Your task to perform on an android device: Open Youtube and go to "Your channel" Image 0: 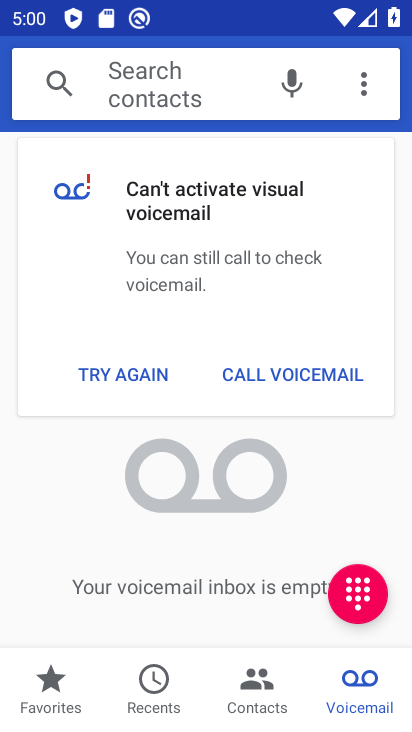
Step 0: press home button
Your task to perform on an android device: Open Youtube and go to "Your channel" Image 1: 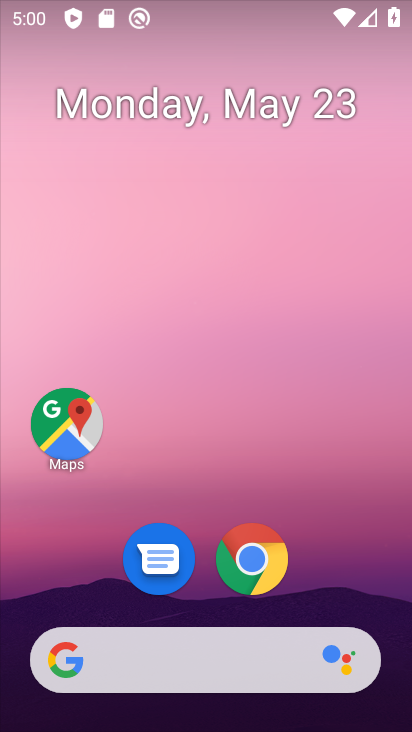
Step 1: drag from (183, 646) to (218, 6)
Your task to perform on an android device: Open Youtube and go to "Your channel" Image 2: 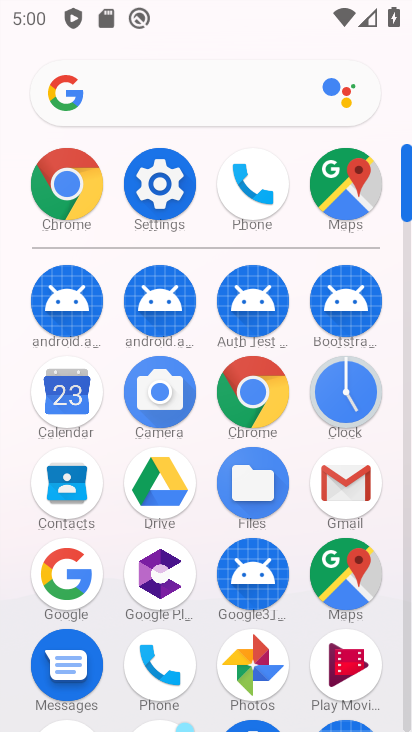
Step 2: drag from (293, 583) to (286, 108)
Your task to perform on an android device: Open Youtube and go to "Your channel" Image 3: 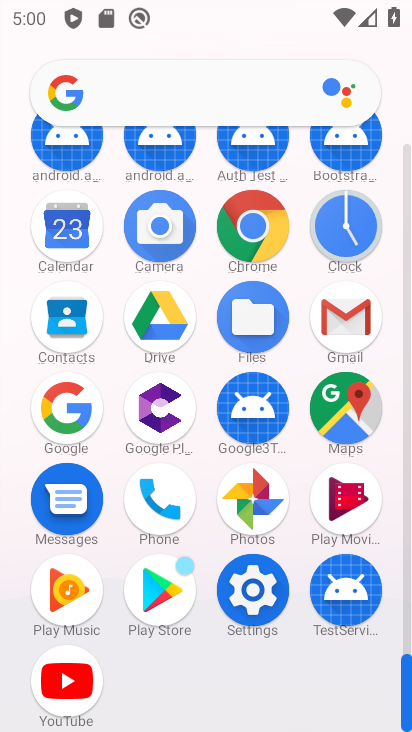
Step 3: click (70, 674)
Your task to perform on an android device: Open Youtube and go to "Your channel" Image 4: 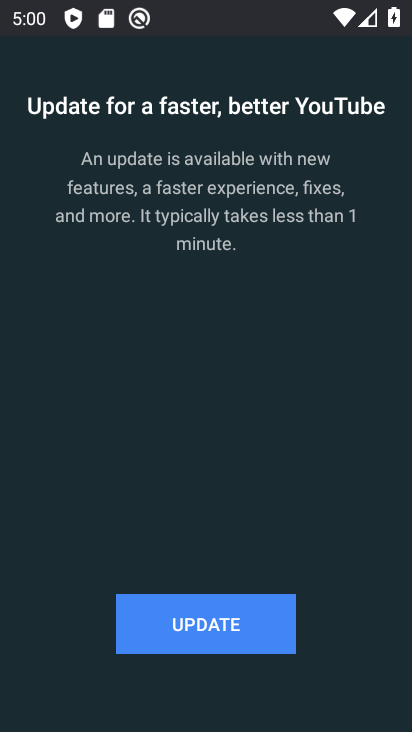
Step 4: click (242, 620)
Your task to perform on an android device: Open Youtube and go to "Your channel" Image 5: 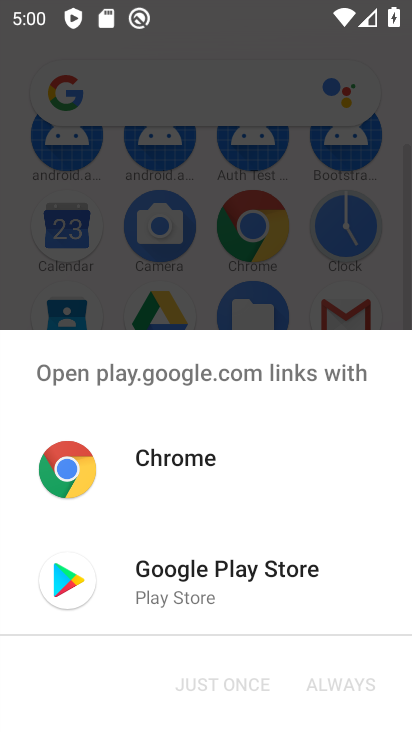
Step 5: click (276, 567)
Your task to perform on an android device: Open Youtube and go to "Your channel" Image 6: 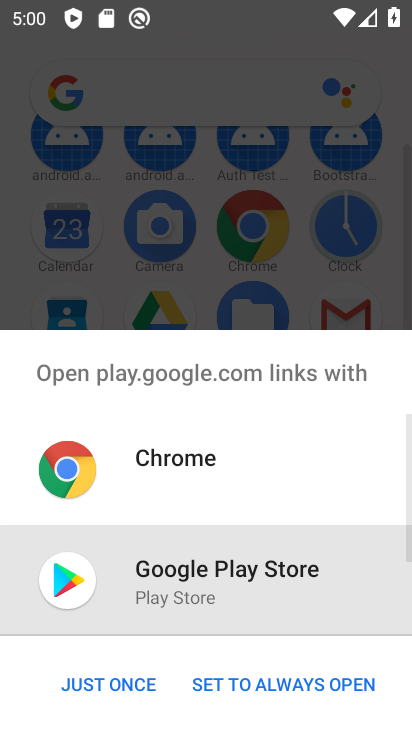
Step 6: click (120, 676)
Your task to perform on an android device: Open Youtube and go to "Your channel" Image 7: 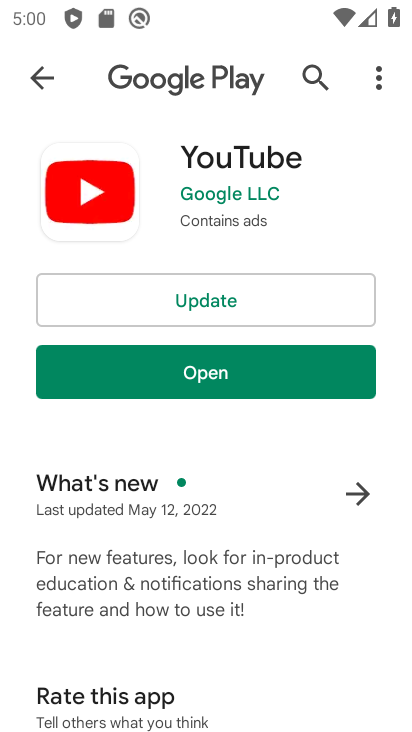
Step 7: click (171, 312)
Your task to perform on an android device: Open Youtube and go to "Your channel" Image 8: 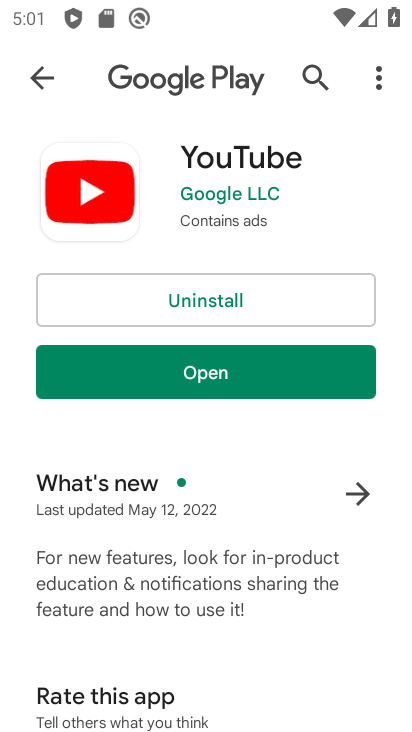
Step 8: click (238, 364)
Your task to perform on an android device: Open Youtube and go to "Your channel" Image 9: 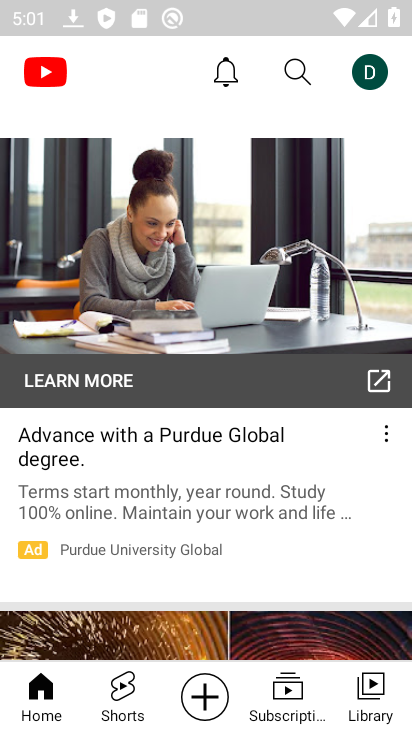
Step 9: click (355, 67)
Your task to perform on an android device: Open Youtube and go to "Your channel" Image 10: 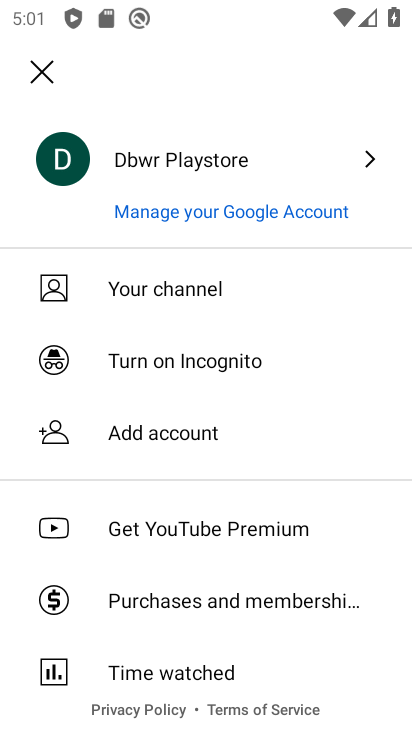
Step 10: click (227, 302)
Your task to perform on an android device: Open Youtube and go to "Your channel" Image 11: 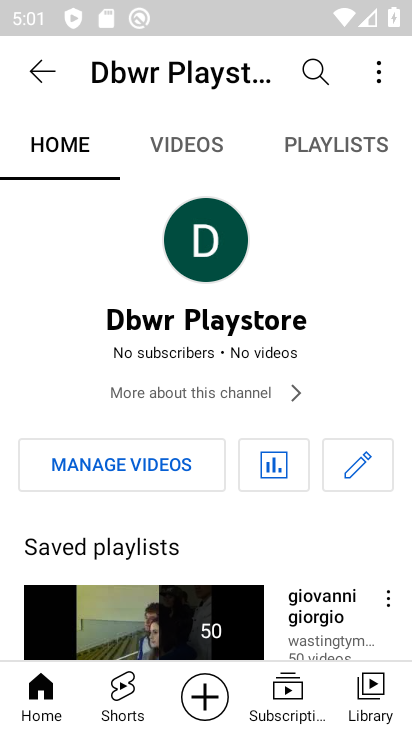
Step 11: task complete